Your task to perform on an android device: Do I have any events today? Image 0: 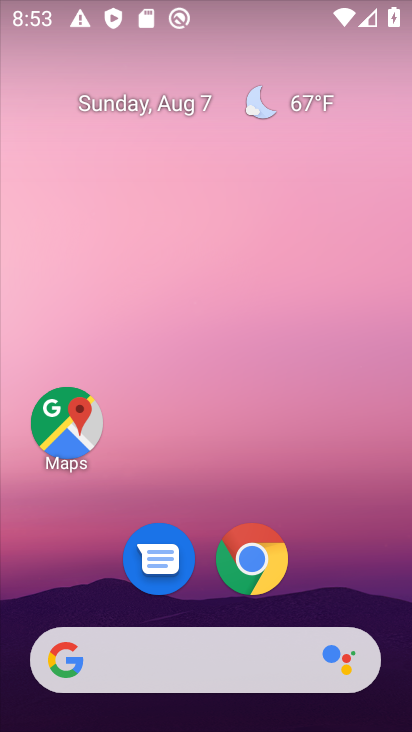
Step 0: drag from (362, 602) to (269, 175)
Your task to perform on an android device: Do I have any events today? Image 1: 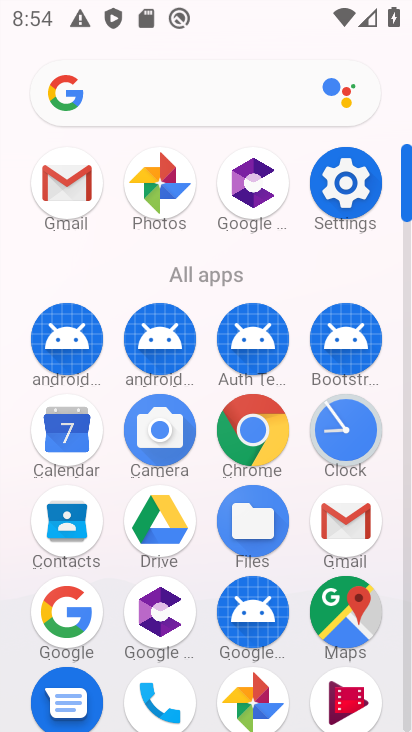
Step 1: click (82, 432)
Your task to perform on an android device: Do I have any events today? Image 2: 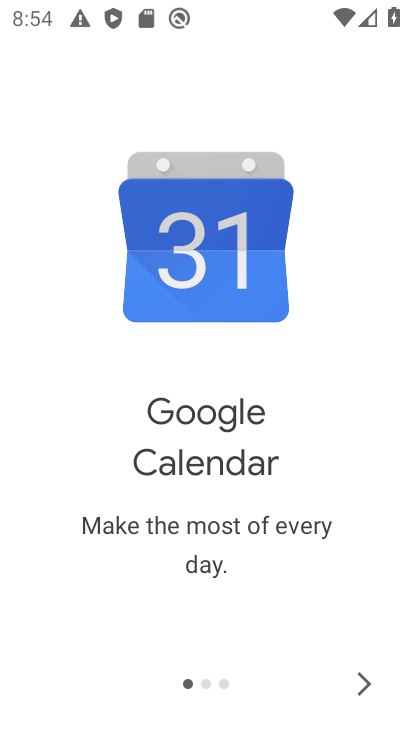
Step 2: click (361, 687)
Your task to perform on an android device: Do I have any events today? Image 3: 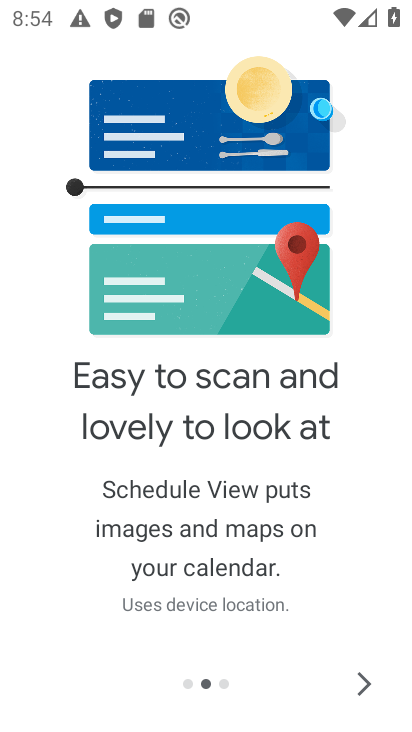
Step 3: click (361, 687)
Your task to perform on an android device: Do I have any events today? Image 4: 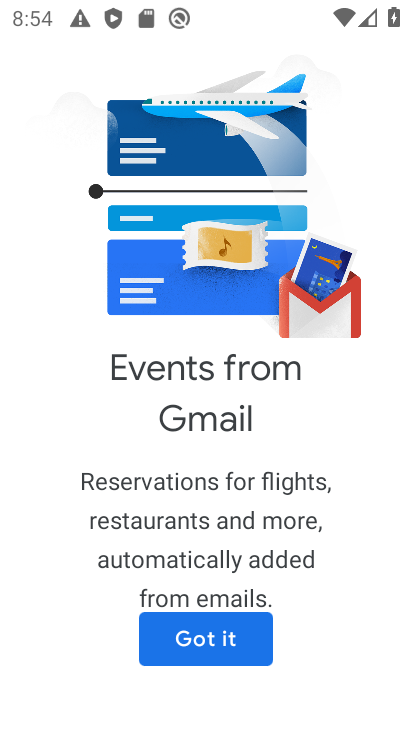
Step 4: click (229, 653)
Your task to perform on an android device: Do I have any events today? Image 5: 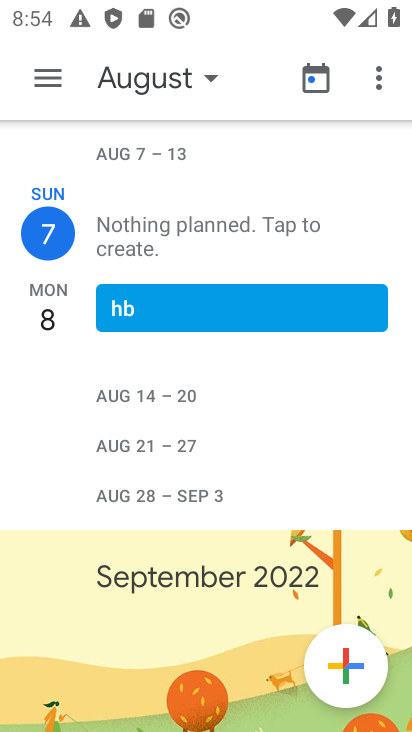
Step 5: click (52, 71)
Your task to perform on an android device: Do I have any events today? Image 6: 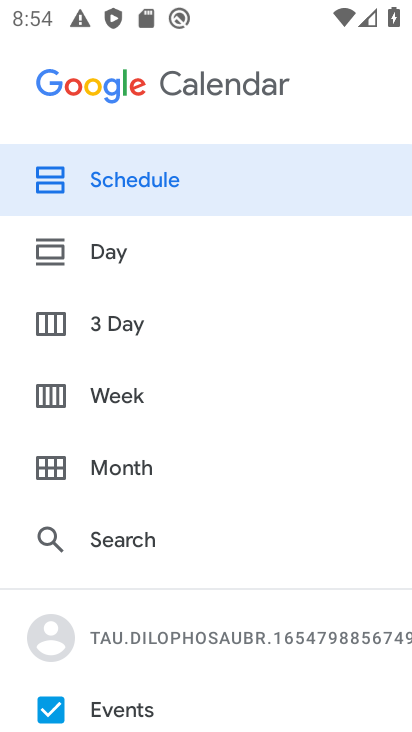
Step 6: click (122, 260)
Your task to perform on an android device: Do I have any events today? Image 7: 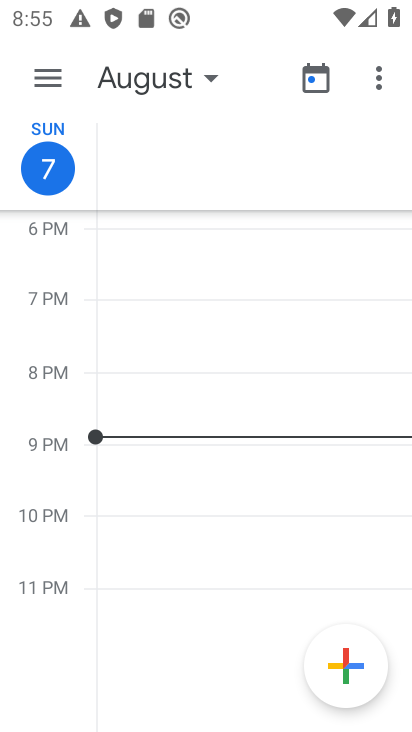
Step 7: task complete